Your task to perform on an android device: What's the US dollar exchange rate against the Canadian Dollar? Image 0: 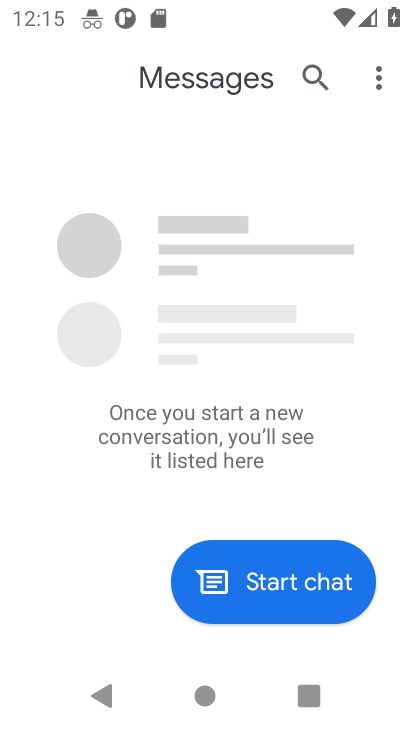
Step 0: press home button
Your task to perform on an android device: What's the US dollar exchange rate against the Canadian Dollar? Image 1: 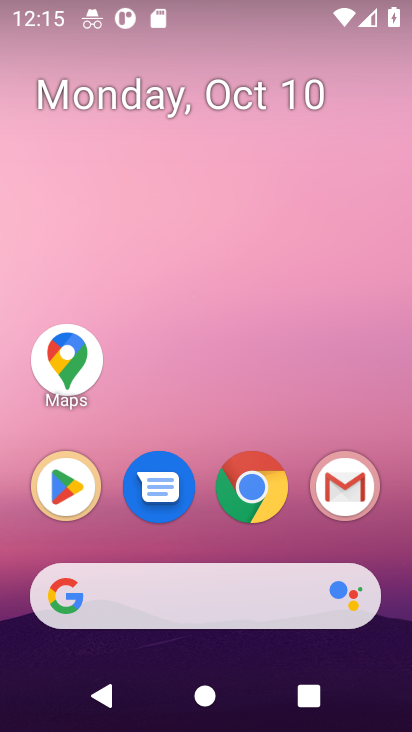
Step 1: click (234, 503)
Your task to perform on an android device: What's the US dollar exchange rate against the Canadian Dollar? Image 2: 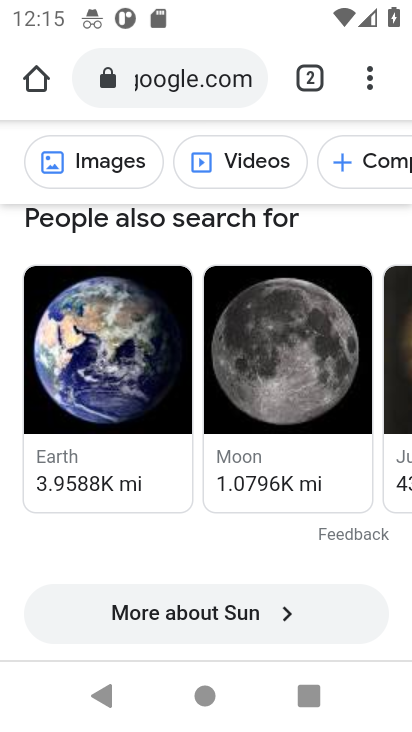
Step 2: click (186, 86)
Your task to perform on an android device: What's the US dollar exchange rate against the Canadian Dollar? Image 3: 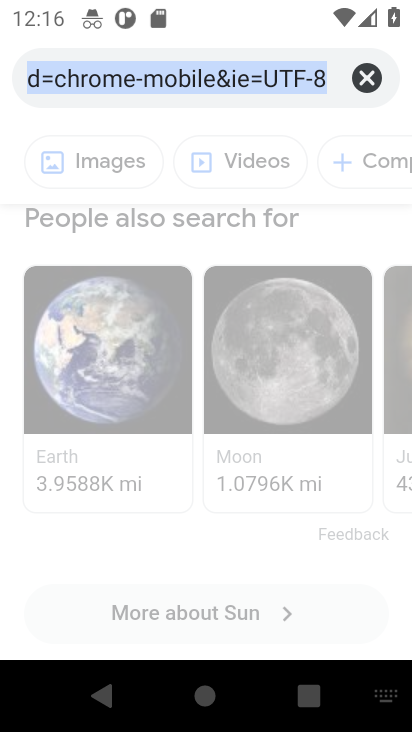
Step 3: type "us dollar exchange rate against the canadian dollar"
Your task to perform on an android device: What's the US dollar exchange rate against the Canadian Dollar? Image 4: 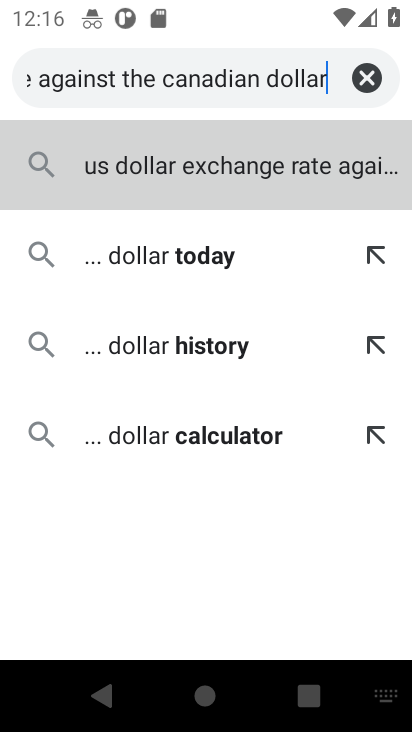
Step 4: type ""
Your task to perform on an android device: What's the US dollar exchange rate against the Canadian Dollar? Image 5: 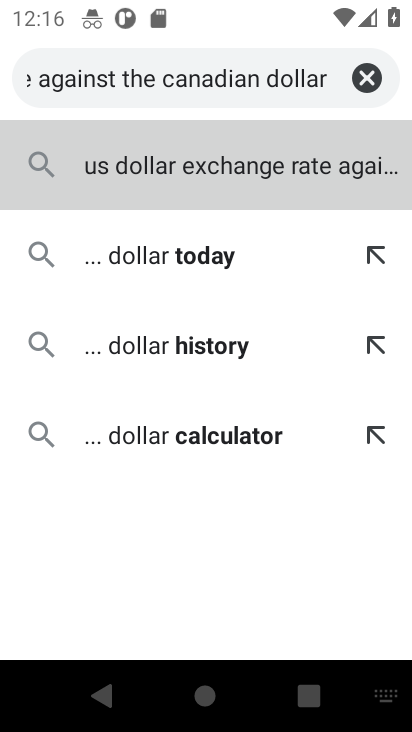
Step 5: press enter
Your task to perform on an android device: What's the US dollar exchange rate against the Canadian Dollar? Image 6: 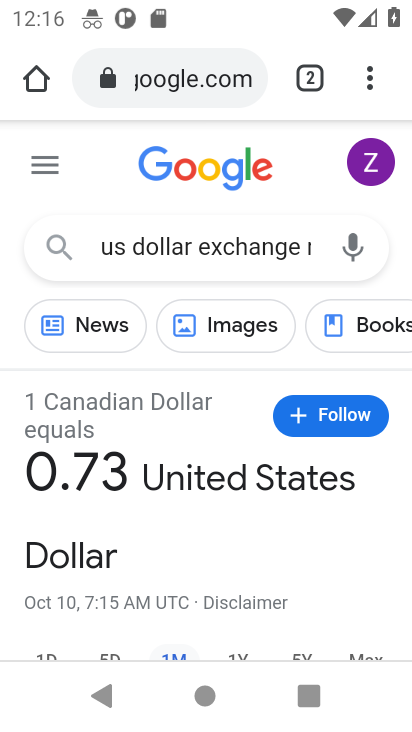
Step 6: task complete